Your task to perform on an android device: Go to Android settings Image 0: 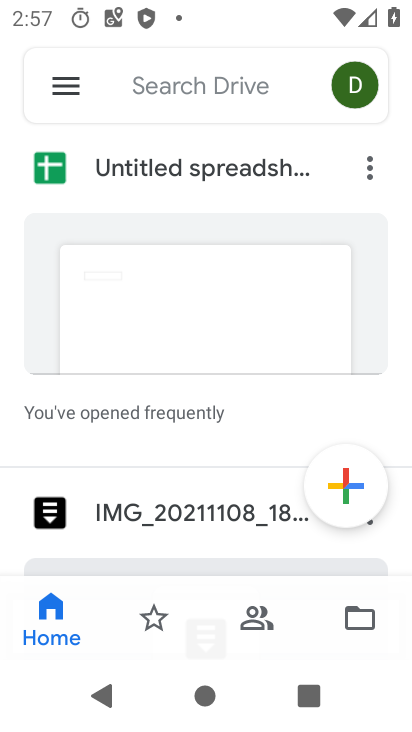
Step 0: press home button
Your task to perform on an android device: Go to Android settings Image 1: 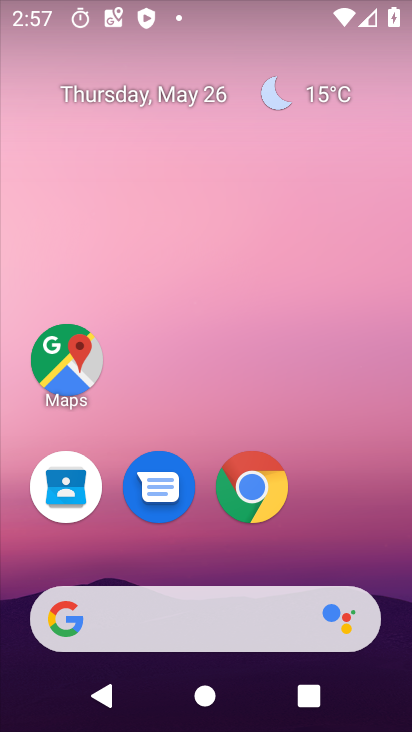
Step 1: drag from (197, 318) to (209, 211)
Your task to perform on an android device: Go to Android settings Image 2: 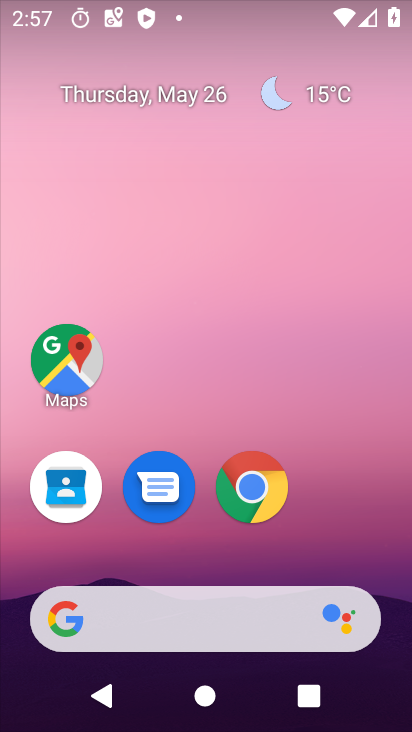
Step 2: drag from (186, 561) to (189, 232)
Your task to perform on an android device: Go to Android settings Image 3: 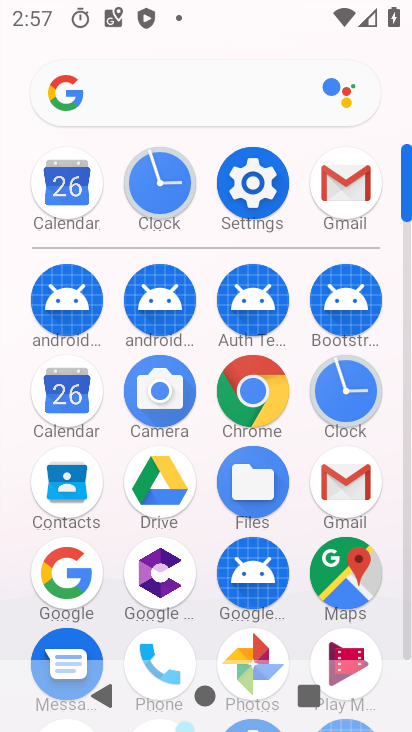
Step 3: click (240, 197)
Your task to perform on an android device: Go to Android settings Image 4: 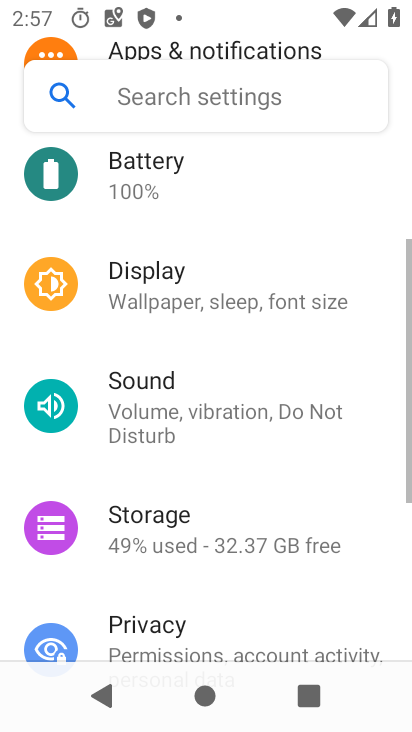
Step 4: task complete